Your task to perform on an android device: Open privacy settings Image 0: 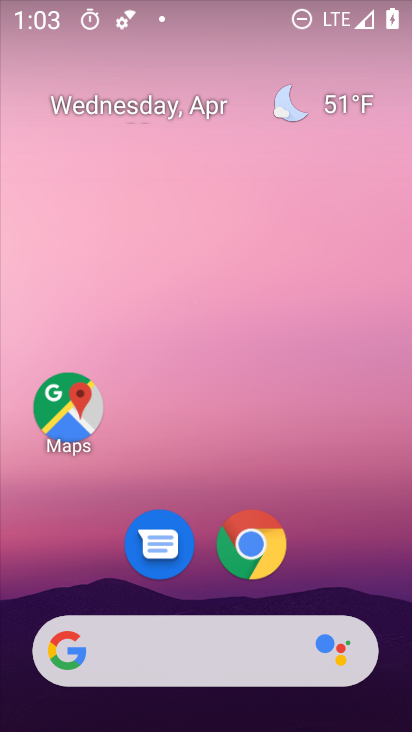
Step 0: drag from (367, 532) to (349, 17)
Your task to perform on an android device: Open privacy settings Image 1: 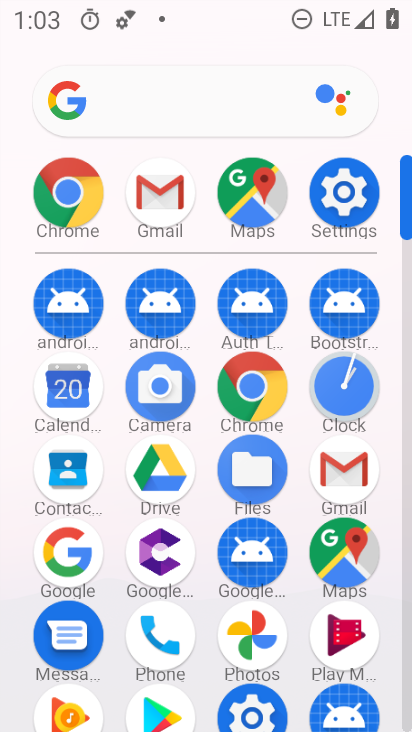
Step 1: click (348, 191)
Your task to perform on an android device: Open privacy settings Image 2: 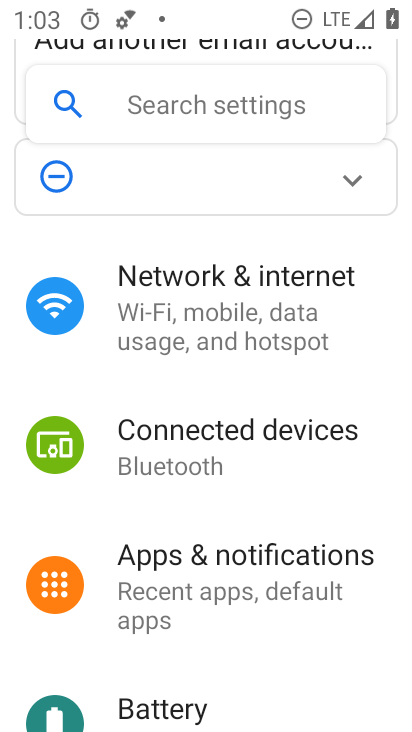
Step 2: drag from (395, 443) to (368, 280)
Your task to perform on an android device: Open privacy settings Image 3: 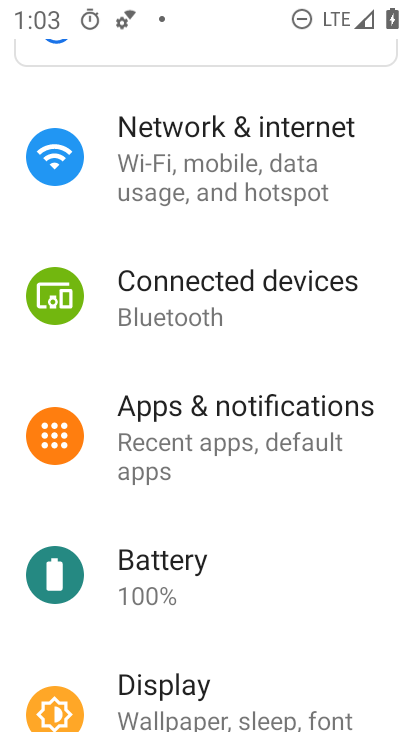
Step 3: drag from (387, 587) to (365, 453)
Your task to perform on an android device: Open privacy settings Image 4: 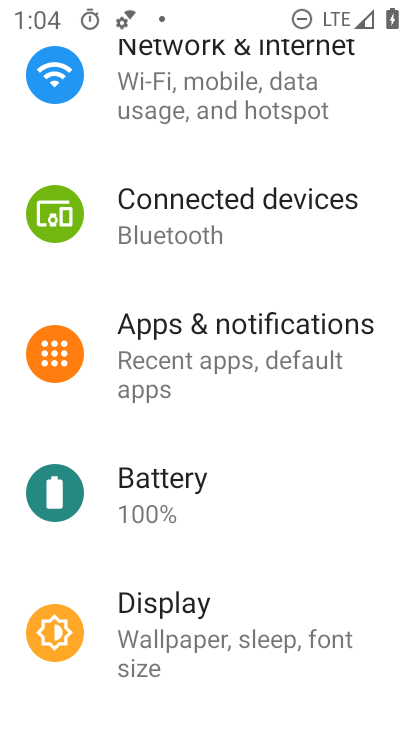
Step 4: drag from (395, 619) to (369, 454)
Your task to perform on an android device: Open privacy settings Image 5: 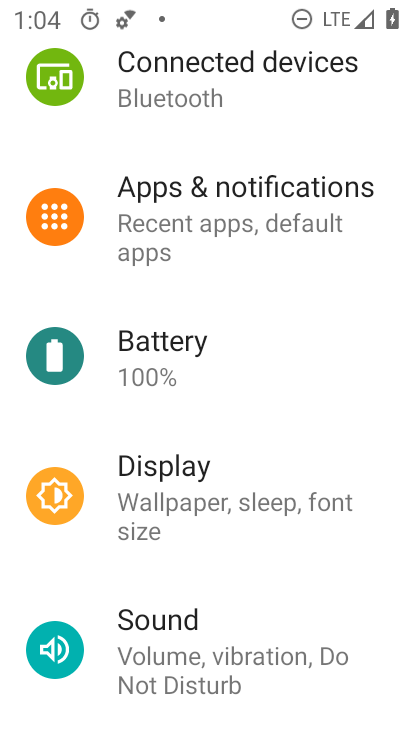
Step 5: drag from (399, 610) to (357, 469)
Your task to perform on an android device: Open privacy settings Image 6: 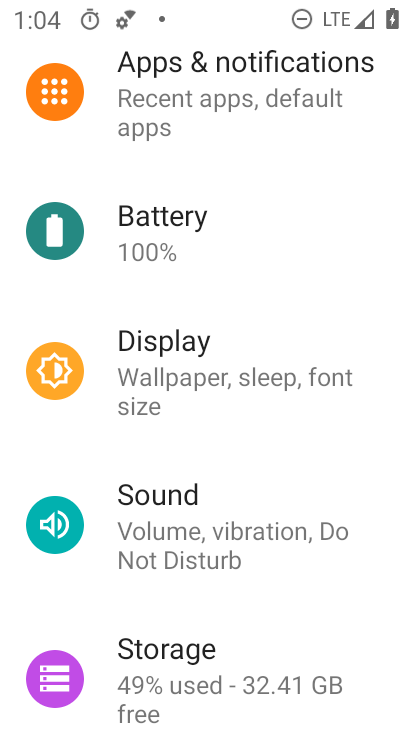
Step 6: drag from (361, 544) to (361, 469)
Your task to perform on an android device: Open privacy settings Image 7: 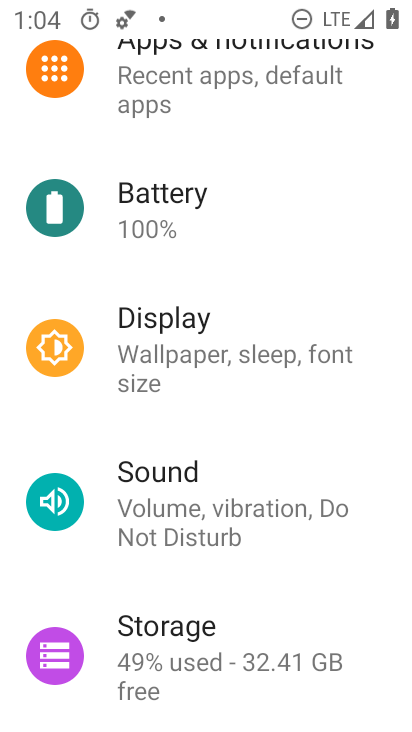
Step 7: drag from (395, 639) to (343, 501)
Your task to perform on an android device: Open privacy settings Image 8: 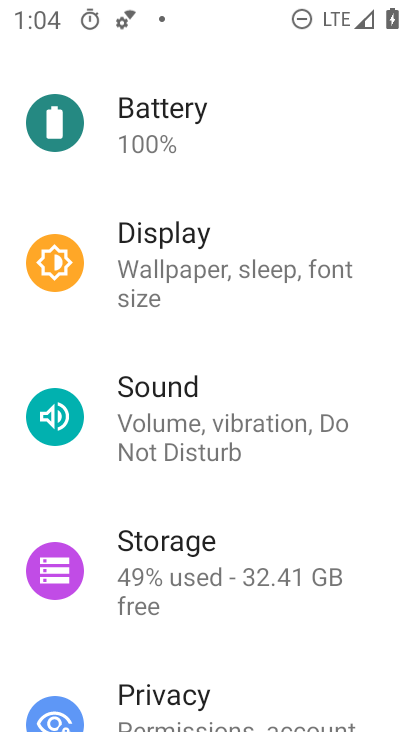
Step 8: drag from (325, 677) to (304, 538)
Your task to perform on an android device: Open privacy settings Image 9: 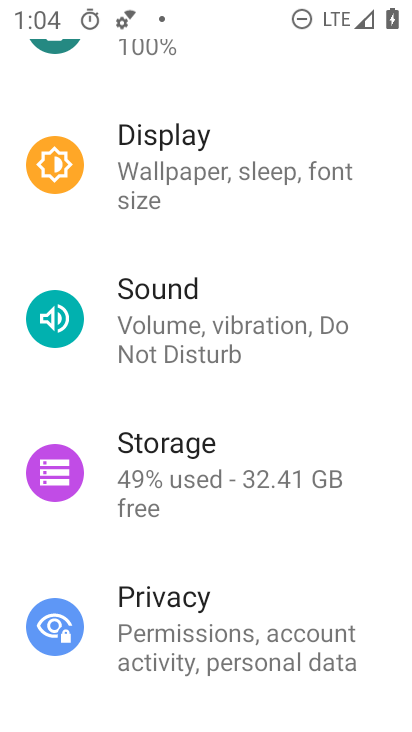
Step 9: drag from (369, 667) to (378, 527)
Your task to perform on an android device: Open privacy settings Image 10: 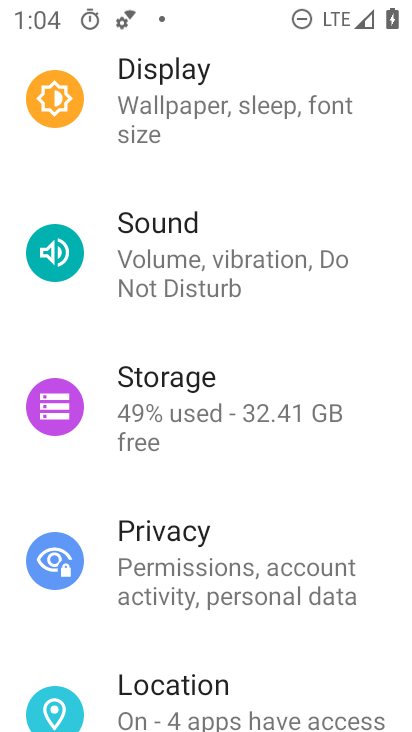
Step 10: drag from (366, 677) to (335, 512)
Your task to perform on an android device: Open privacy settings Image 11: 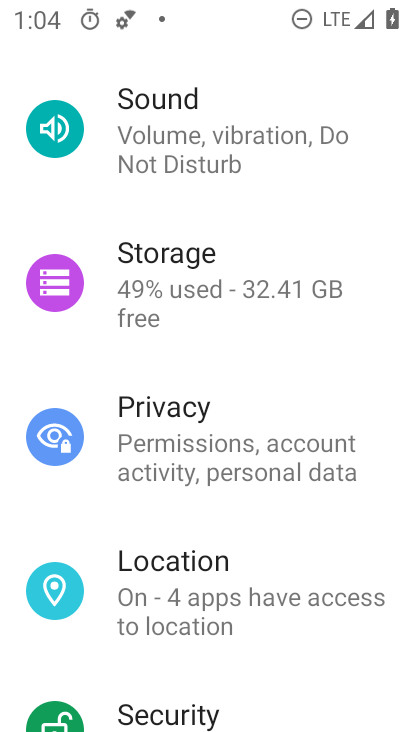
Step 11: drag from (363, 584) to (347, 438)
Your task to perform on an android device: Open privacy settings Image 12: 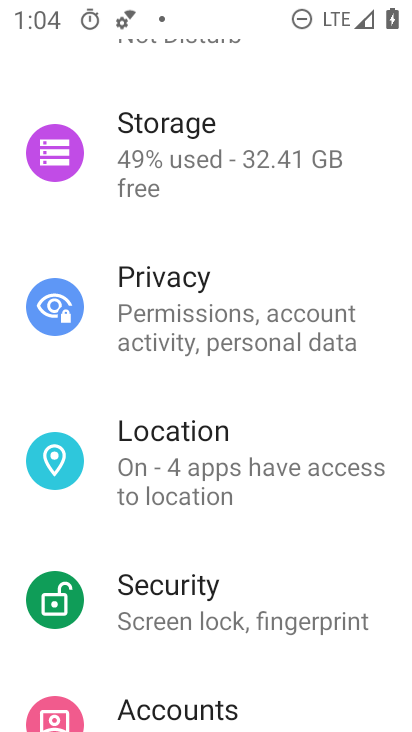
Step 12: drag from (361, 563) to (348, 421)
Your task to perform on an android device: Open privacy settings Image 13: 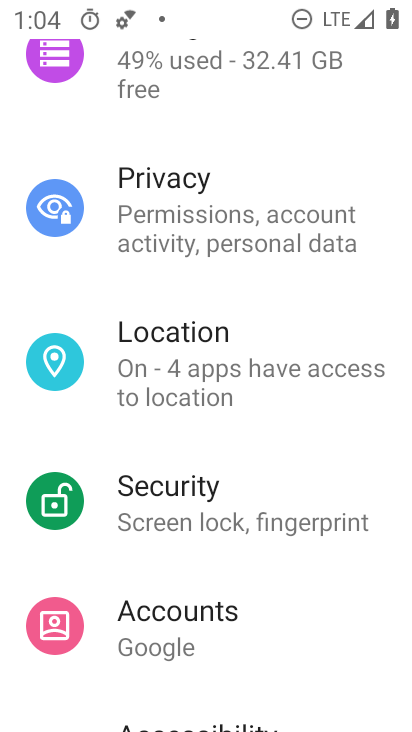
Step 13: click (153, 246)
Your task to perform on an android device: Open privacy settings Image 14: 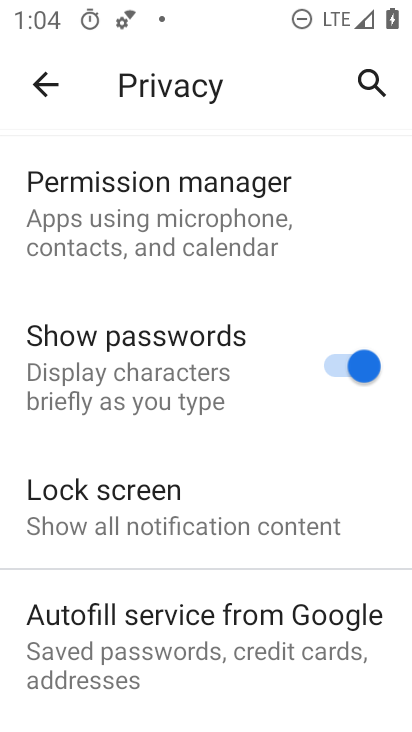
Step 14: task complete